Your task to perform on an android device: turn vacation reply on in the gmail app Image 0: 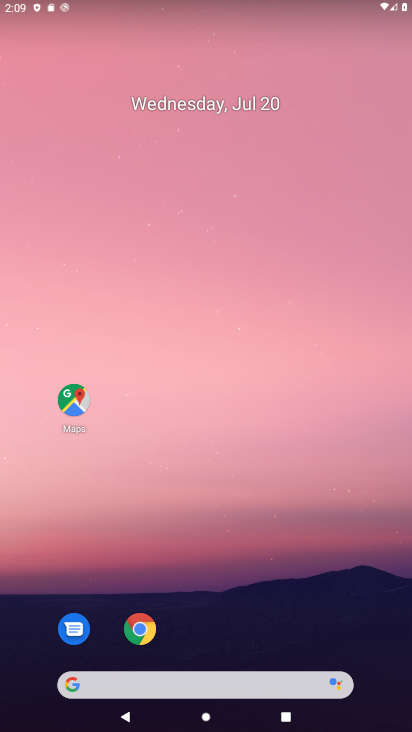
Step 0: drag from (205, 677) to (108, 36)
Your task to perform on an android device: turn vacation reply on in the gmail app Image 1: 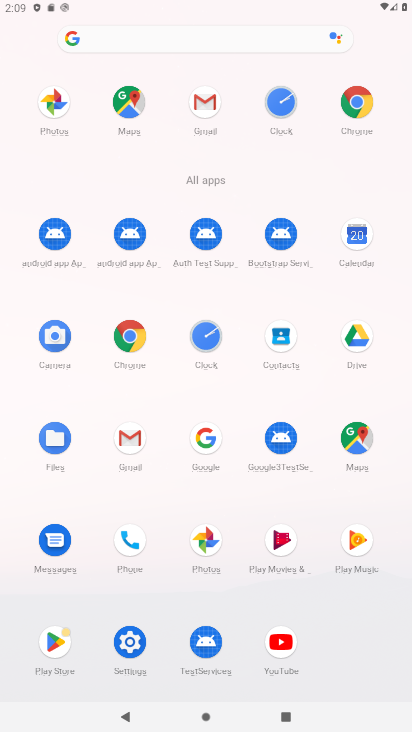
Step 1: click (125, 435)
Your task to perform on an android device: turn vacation reply on in the gmail app Image 2: 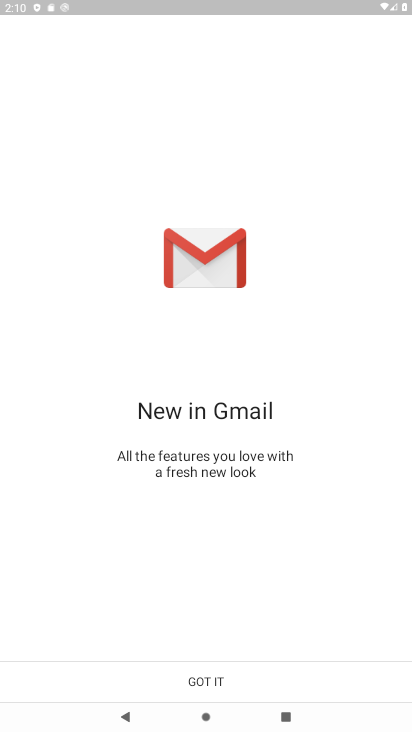
Step 2: click (209, 673)
Your task to perform on an android device: turn vacation reply on in the gmail app Image 3: 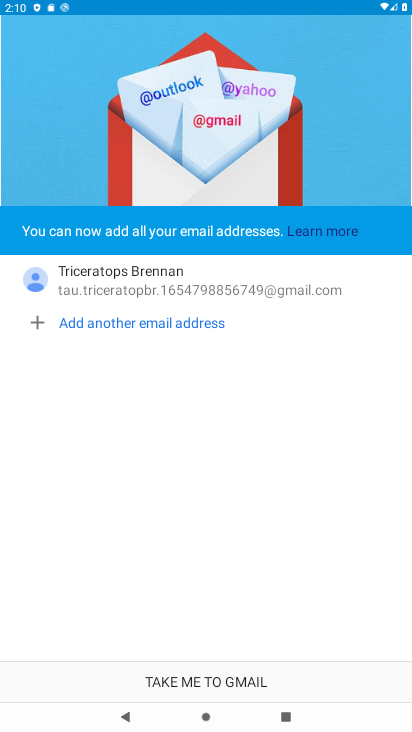
Step 3: click (196, 677)
Your task to perform on an android device: turn vacation reply on in the gmail app Image 4: 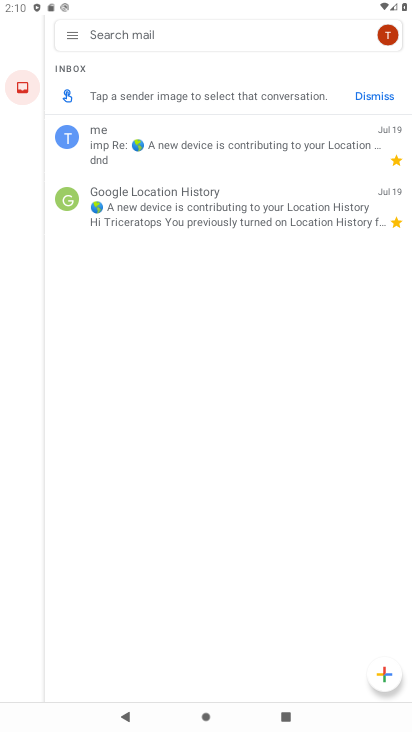
Step 4: click (70, 29)
Your task to perform on an android device: turn vacation reply on in the gmail app Image 5: 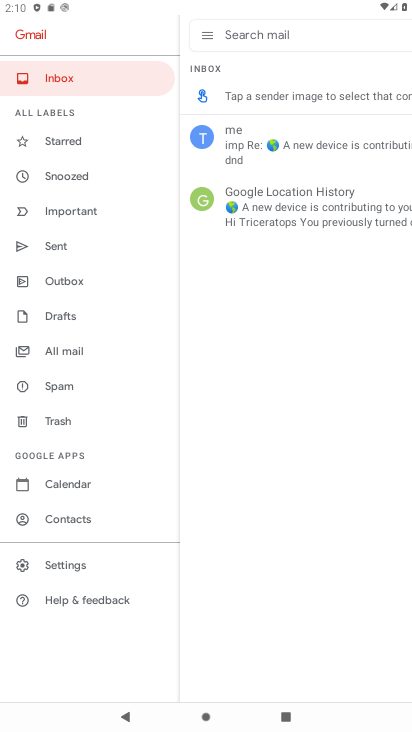
Step 5: click (81, 559)
Your task to perform on an android device: turn vacation reply on in the gmail app Image 6: 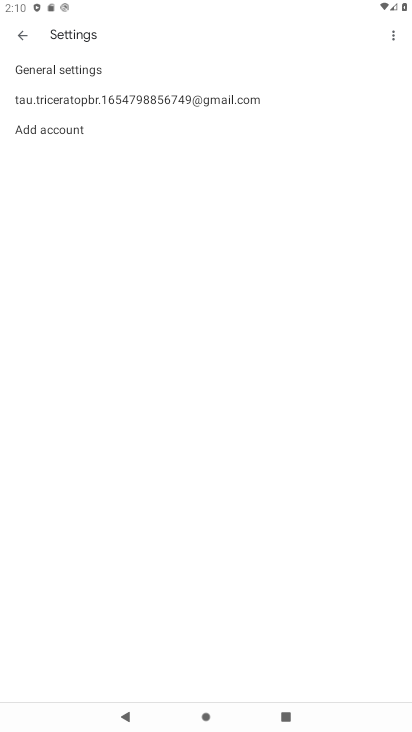
Step 6: click (98, 101)
Your task to perform on an android device: turn vacation reply on in the gmail app Image 7: 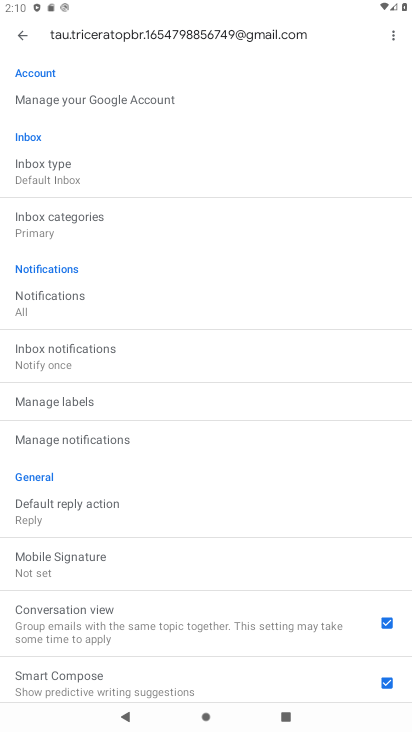
Step 7: drag from (155, 610) to (102, 234)
Your task to perform on an android device: turn vacation reply on in the gmail app Image 8: 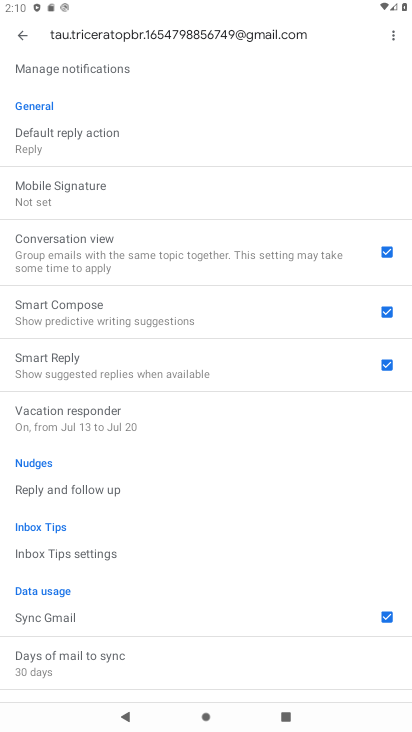
Step 8: click (139, 429)
Your task to perform on an android device: turn vacation reply on in the gmail app Image 9: 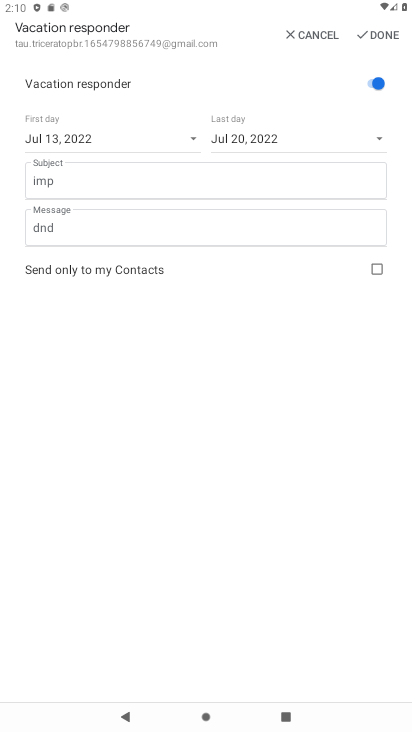
Step 9: click (387, 31)
Your task to perform on an android device: turn vacation reply on in the gmail app Image 10: 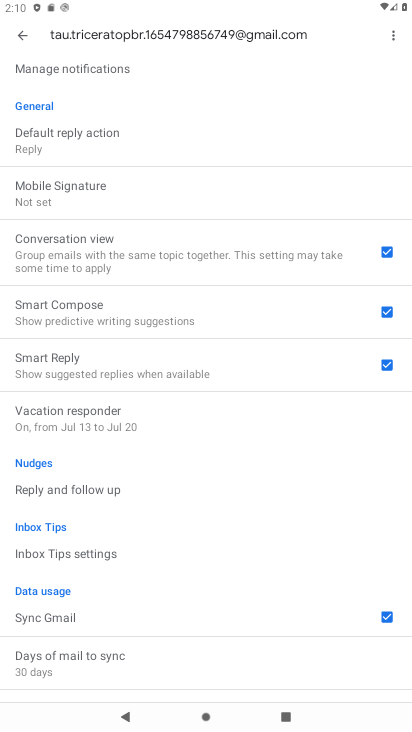
Step 10: task complete